Your task to perform on an android device: Open Google Chrome and click the shortcut for Amazon.com Image 0: 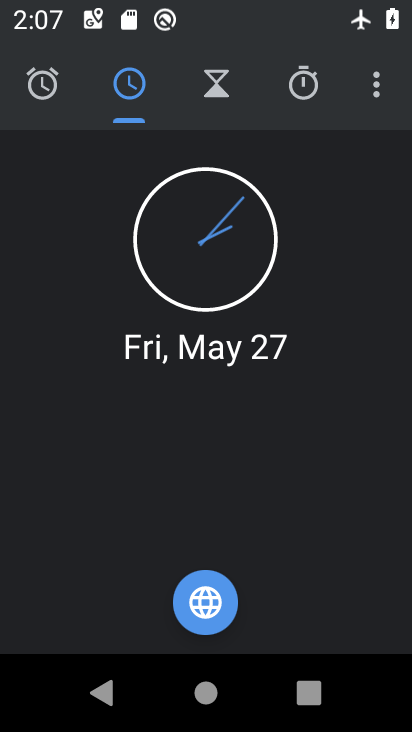
Step 0: press home button
Your task to perform on an android device: Open Google Chrome and click the shortcut for Amazon.com Image 1: 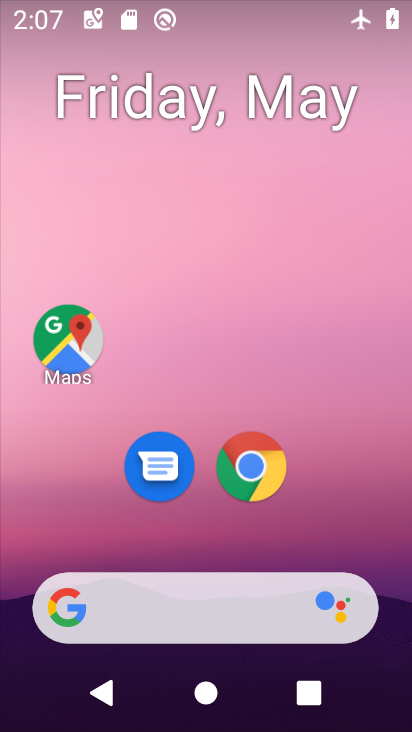
Step 1: drag from (357, 516) to (376, 22)
Your task to perform on an android device: Open Google Chrome and click the shortcut for Amazon.com Image 2: 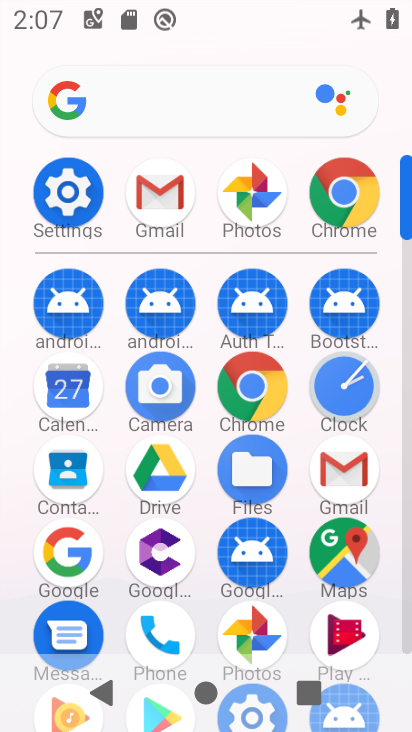
Step 2: click (357, 194)
Your task to perform on an android device: Open Google Chrome and click the shortcut for Amazon.com Image 3: 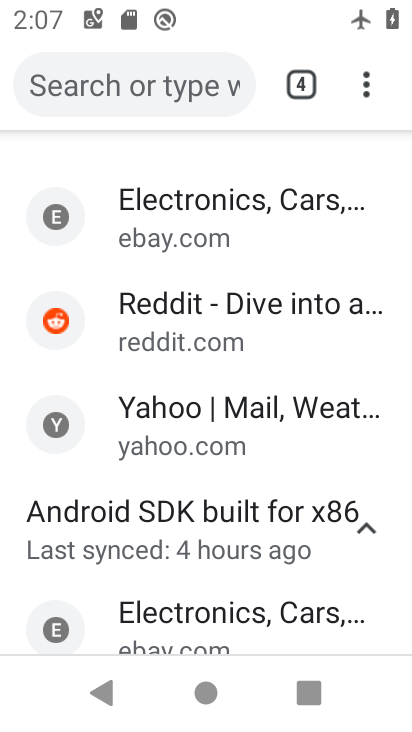
Step 3: click (117, 95)
Your task to perform on an android device: Open Google Chrome and click the shortcut for Amazon.com Image 4: 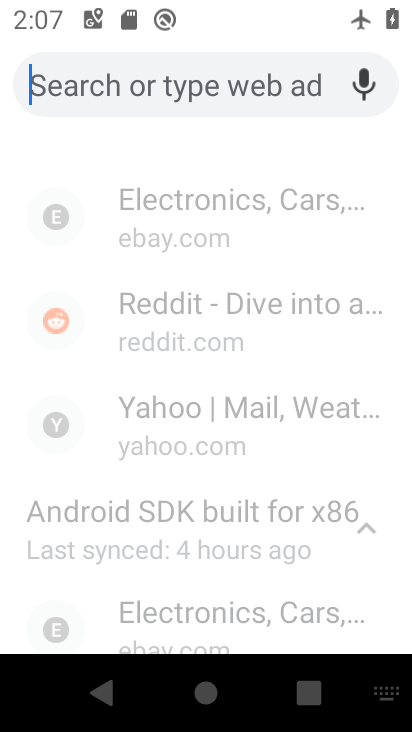
Step 4: type "amazon"
Your task to perform on an android device: Open Google Chrome and click the shortcut for Amazon.com Image 5: 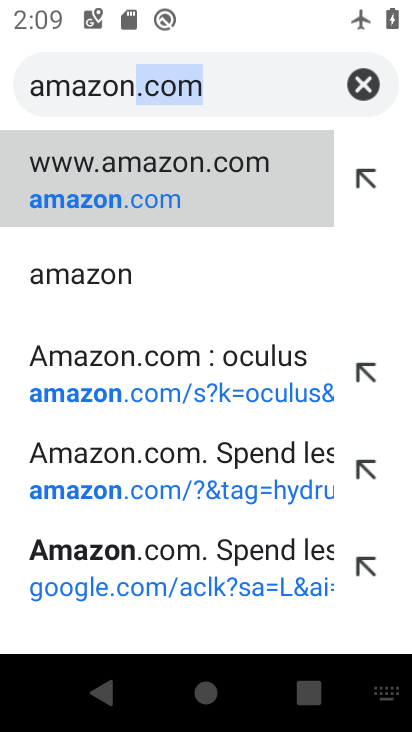
Step 5: press enter
Your task to perform on an android device: Open Google Chrome and click the shortcut for Amazon.com Image 6: 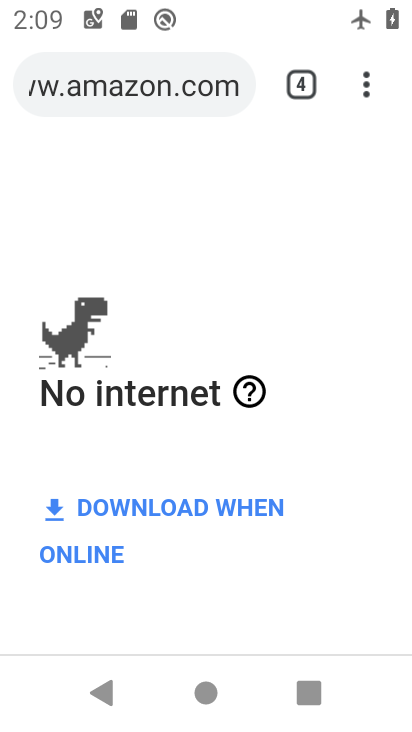
Step 6: task complete